Your task to perform on an android device: open app "Facebook Messenger" Image 0: 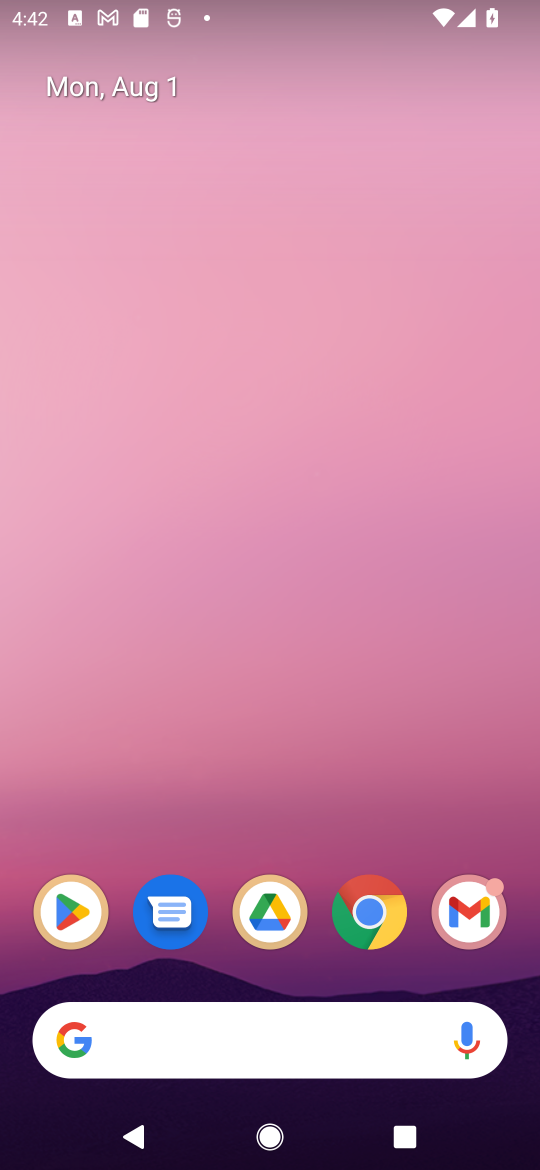
Step 0: click (60, 916)
Your task to perform on an android device: open app "Facebook Messenger" Image 1: 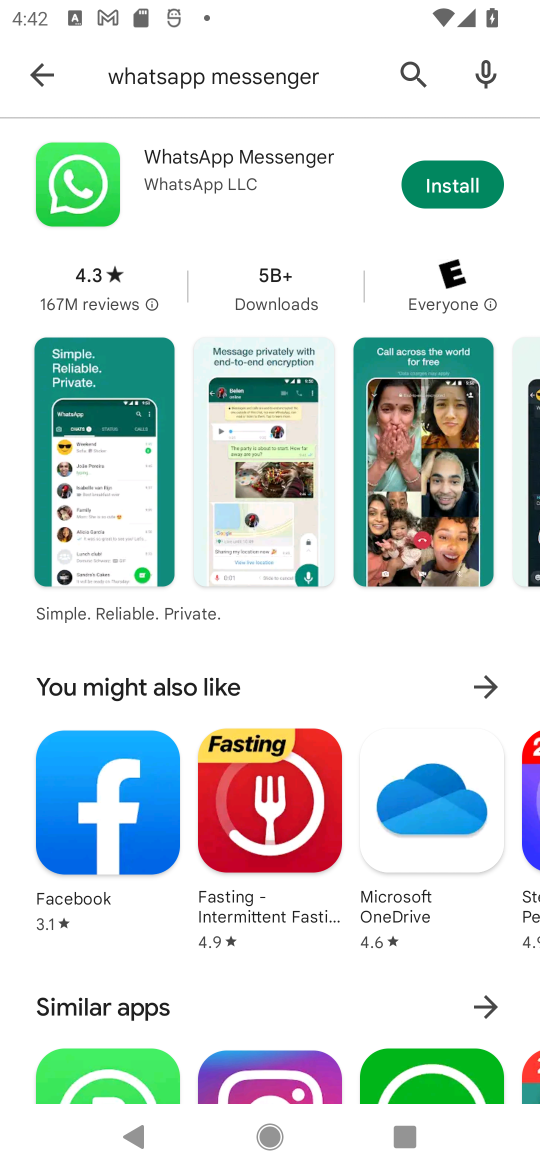
Step 1: click (406, 65)
Your task to perform on an android device: open app "Facebook Messenger" Image 2: 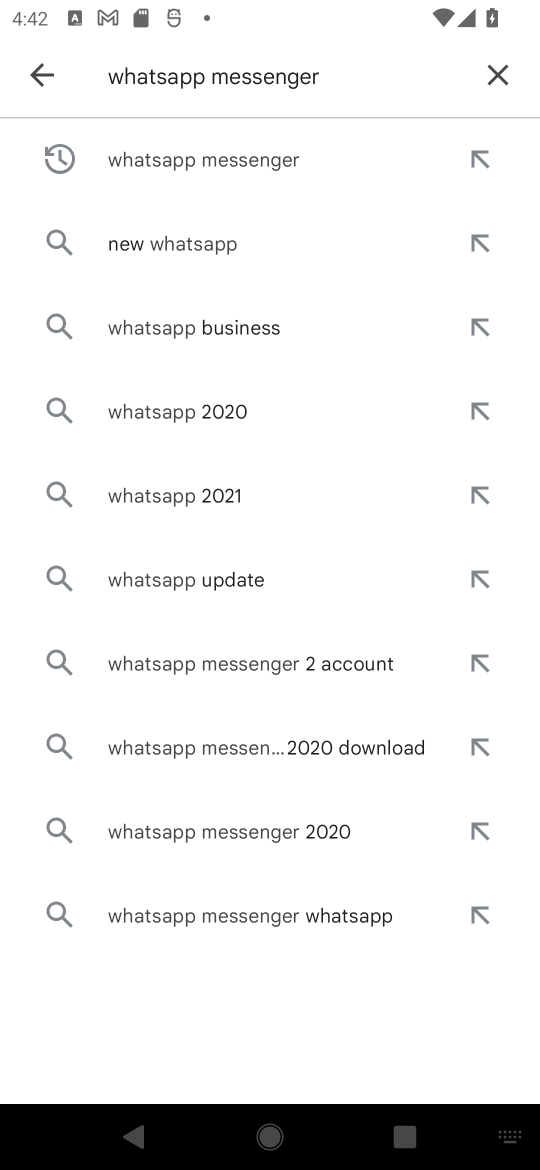
Step 2: click (493, 89)
Your task to perform on an android device: open app "Facebook Messenger" Image 3: 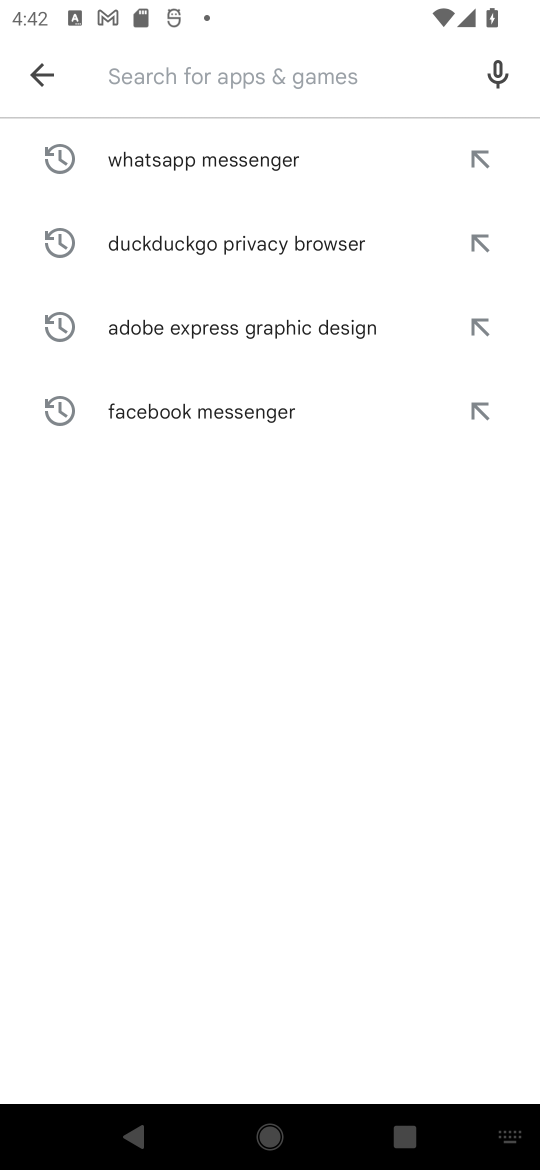
Step 3: type "Facebook Messenger"
Your task to perform on an android device: open app "Facebook Messenger" Image 4: 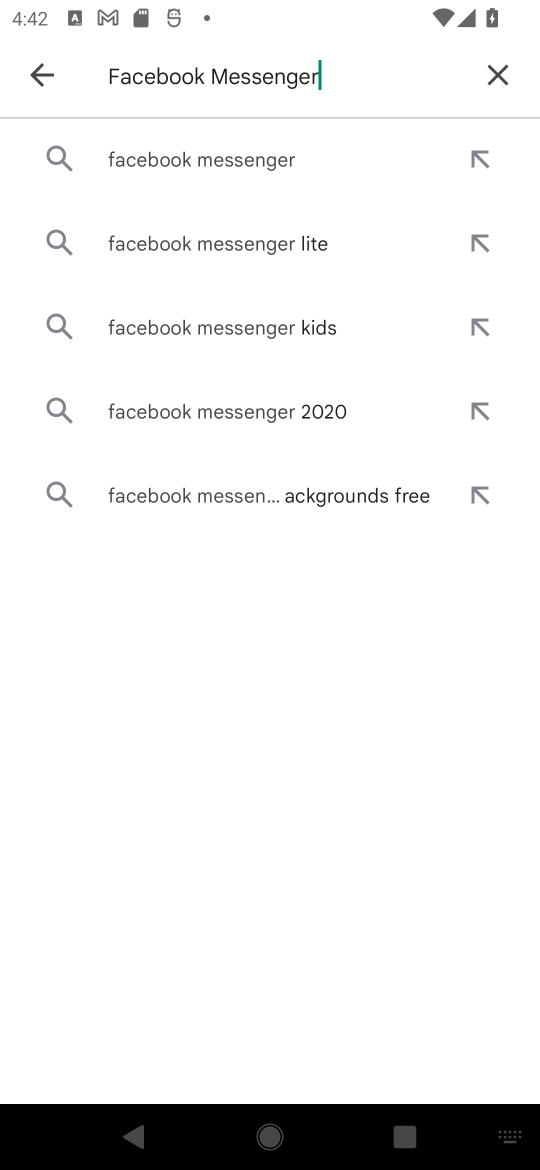
Step 4: click (169, 168)
Your task to perform on an android device: open app "Facebook Messenger" Image 5: 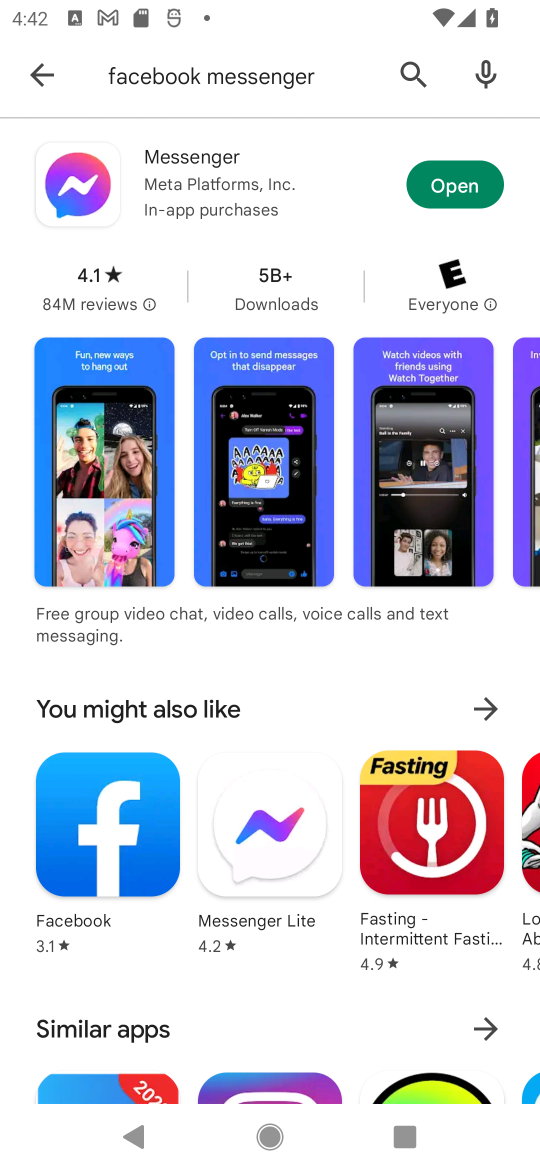
Step 5: click (472, 197)
Your task to perform on an android device: open app "Facebook Messenger" Image 6: 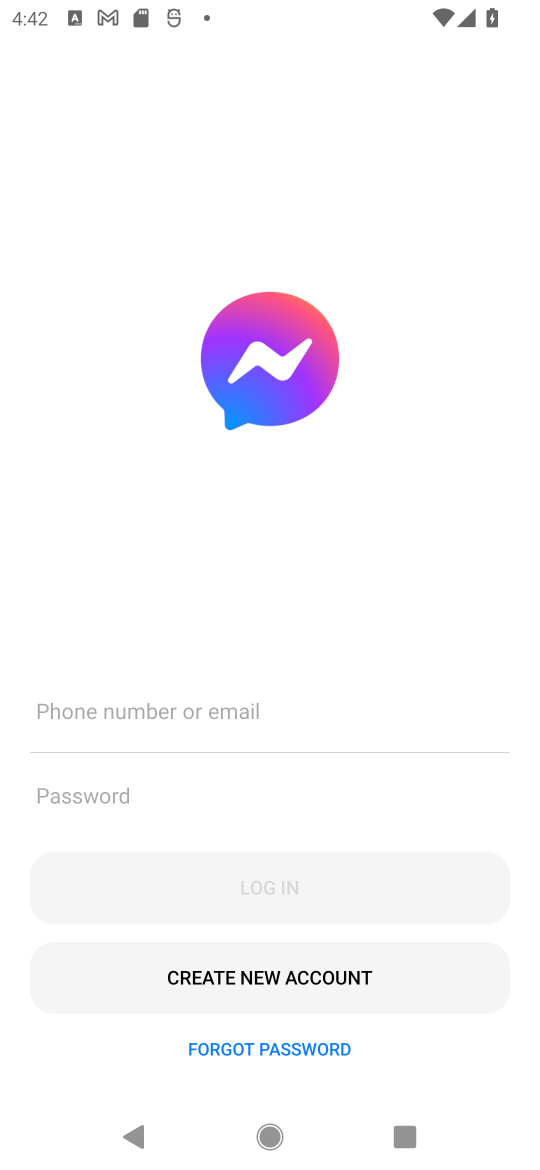
Step 6: task complete